Your task to perform on an android device: Turn on the flashlight Image 0: 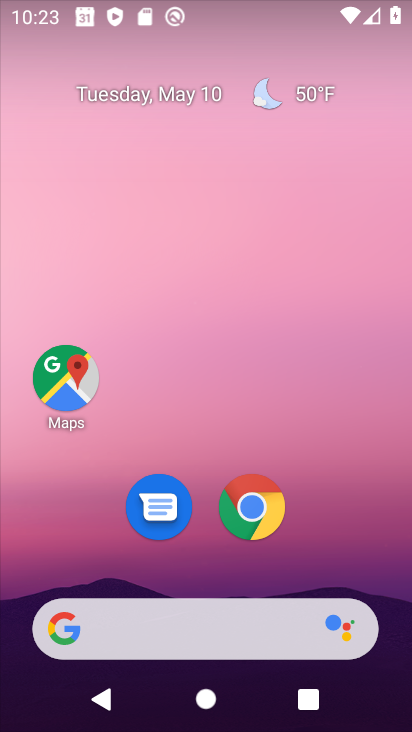
Step 0: drag from (276, 3) to (249, 296)
Your task to perform on an android device: Turn on the flashlight Image 1: 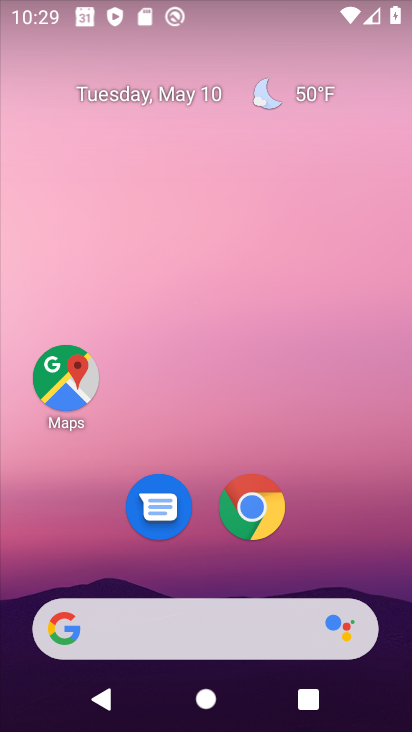
Step 1: task complete